Your task to perform on an android device: turn notification dots on Image 0: 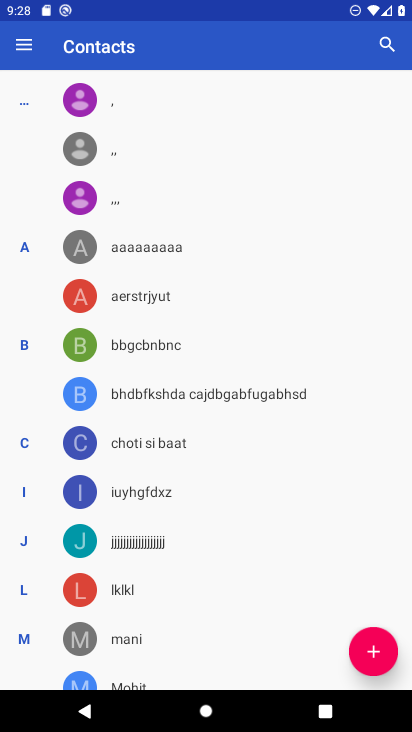
Step 0: press home button
Your task to perform on an android device: turn notification dots on Image 1: 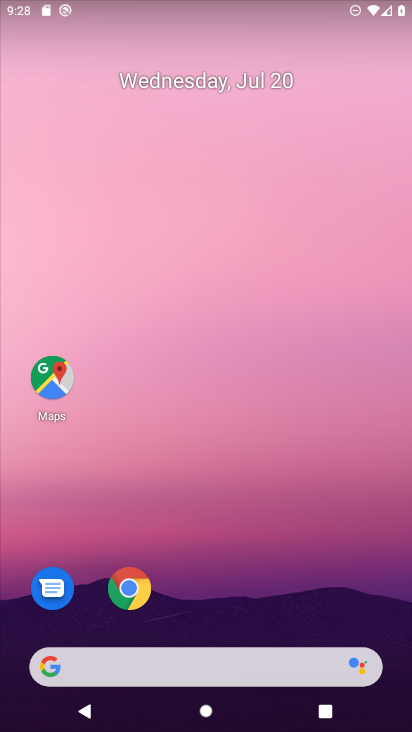
Step 1: drag from (201, 606) to (245, 21)
Your task to perform on an android device: turn notification dots on Image 2: 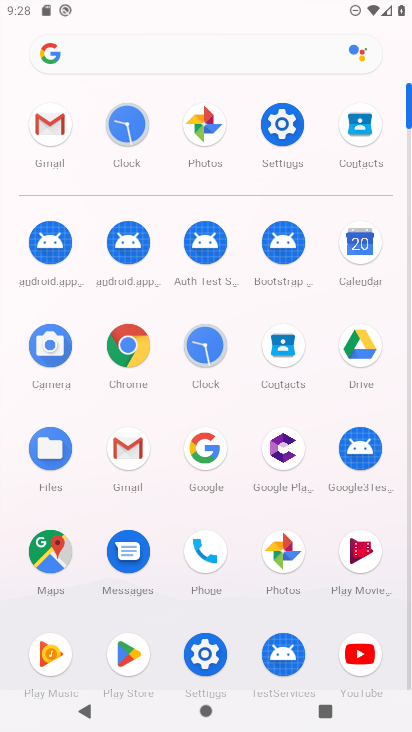
Step 2: click (285, 110)
Your task to perform on an android device: turn notification dots on Image 3: 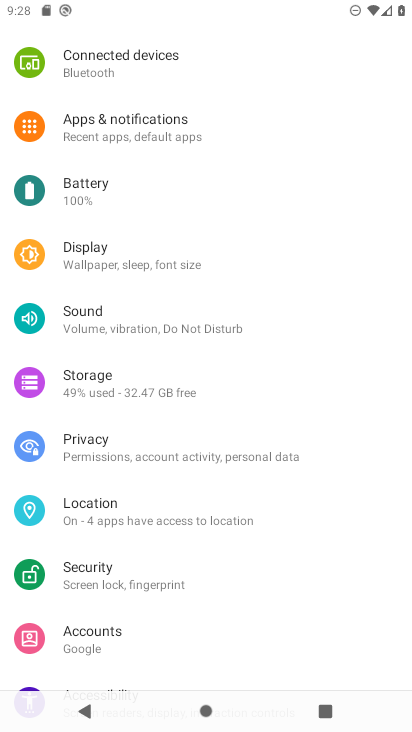
Step 3: click (125, 148)
Your task to perform on an android device: turn notification dots on Image 4: 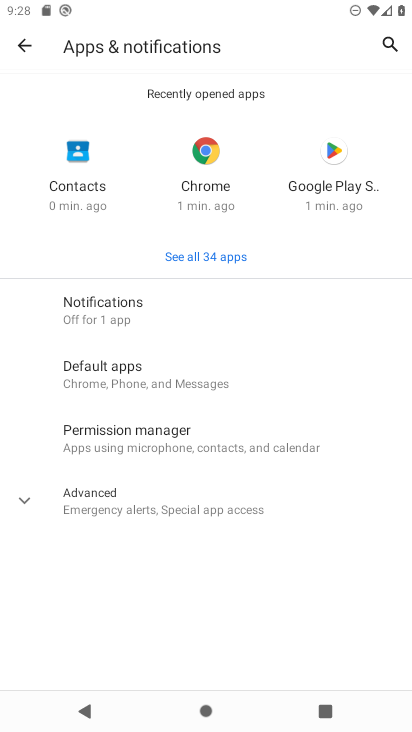
Step 4: click (154, 329)
Your task to perform on an android device: turn notification dots on Image 5: 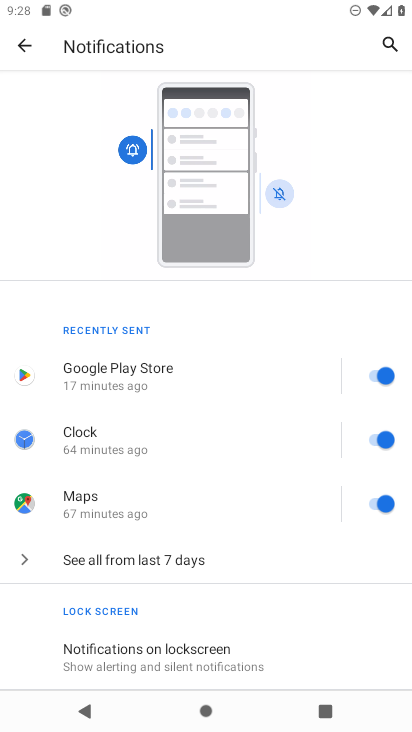
Step 5: drag from (224, 640) to (254, 373)
Your task to perform on an android device: turn notification dots on Image 6: 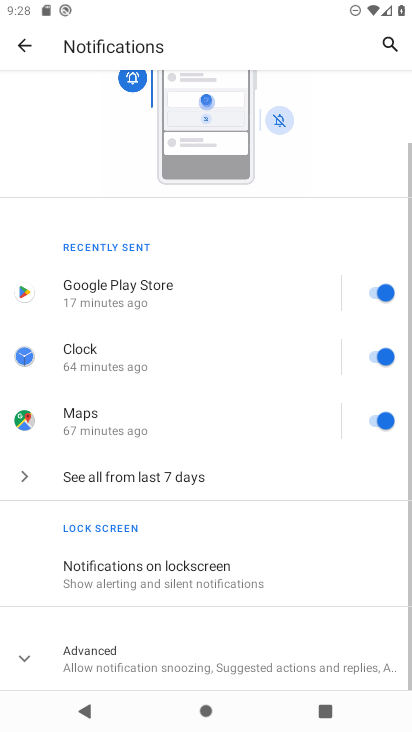
Step 6: drag from (136, 625) to (173, 292)
Your task to perform on an android device: turn notification dots on Image 7: 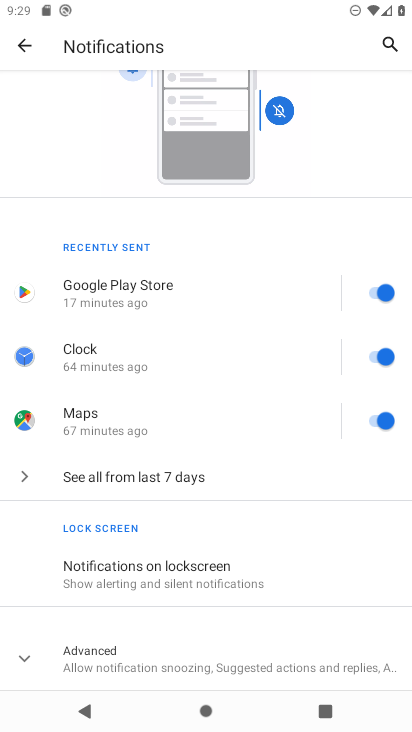
Step 7: click (140, 650)
Your task to perform on an android device: turn notification dots on Image 8: 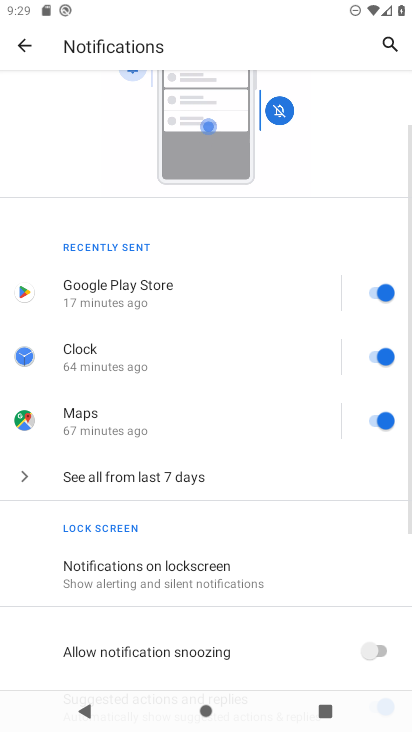
Step 8: task complete